Your task to perform on an android device: delete the emails in spam in the gmail app Image 0: 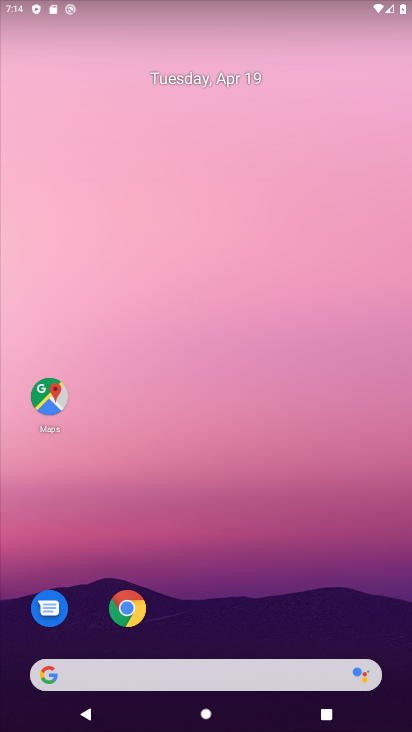
Step 0: drag from (352, 637) to (305, 149)
Your task to perform on an android device: delete the emails in spam in the gmail app Image 1: 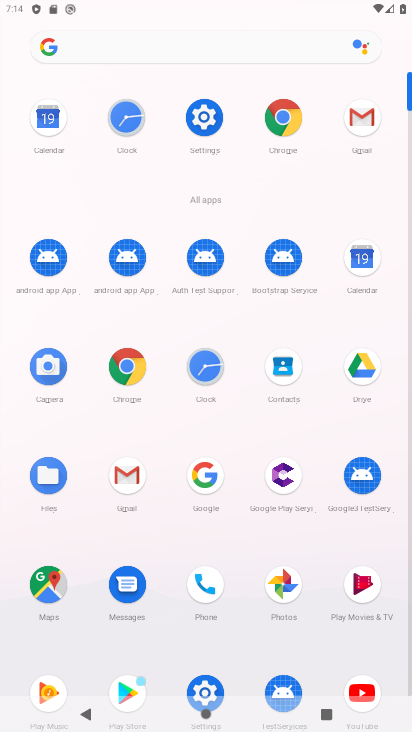
Step 1: click (120, 467)
Your task to perform on an android device: delete the emails in spam in the gmail app Image 2: 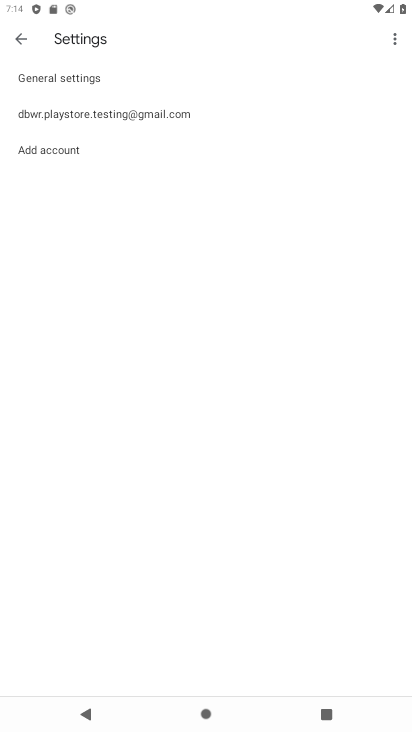
Step 2: press home button
Your task to perform on an android device: delete the emails in spam in the gmail app Image 3: 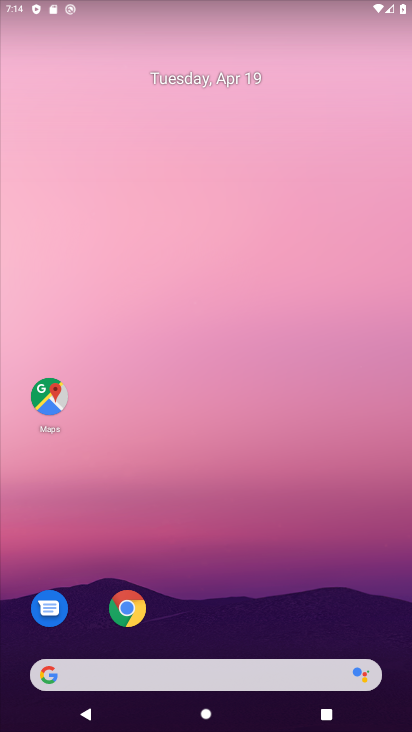
Step 3: drag from (239, 567) to (229, 192)
Your task to perform on an android device: delete the emails in spam in the gmail app Image 4: 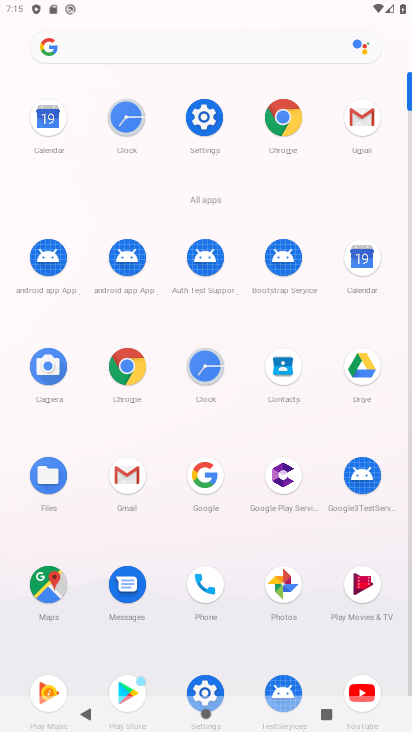
Step 4: click (131, 476)
Your task to perform on an android device: delete the emails in spam in the gmail app Image 5: 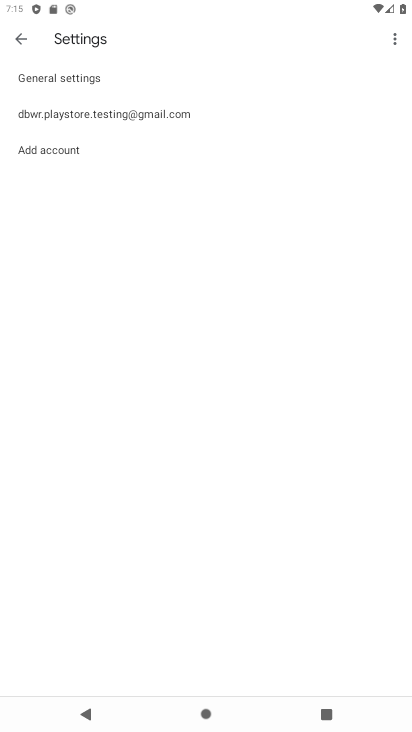
Step 5: click (28, 40)
Your task to perform on an android device: delete the emails in spam in the gmail app Image 6: 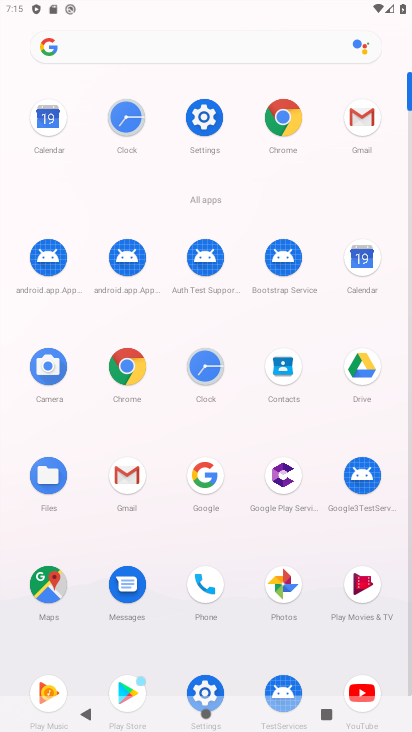
Step 6: click (118, 468)
Your task to perform on an android device: delete the emails in spam in the gmail app Image 7: 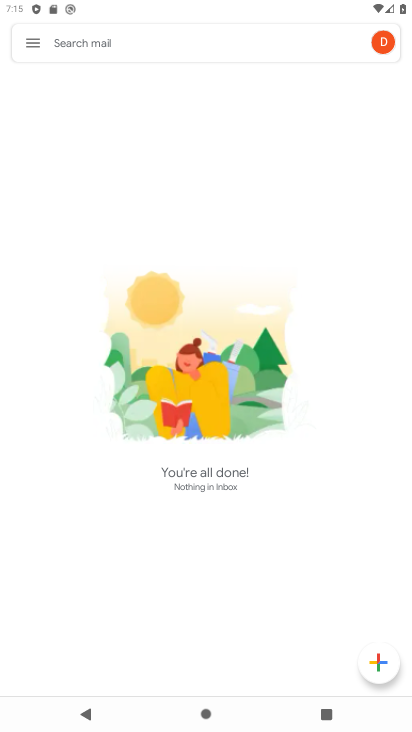
Step 7: click (32, 35)
Your task to perform on an android device: delete the emails in spam in the gmail app Image 8: 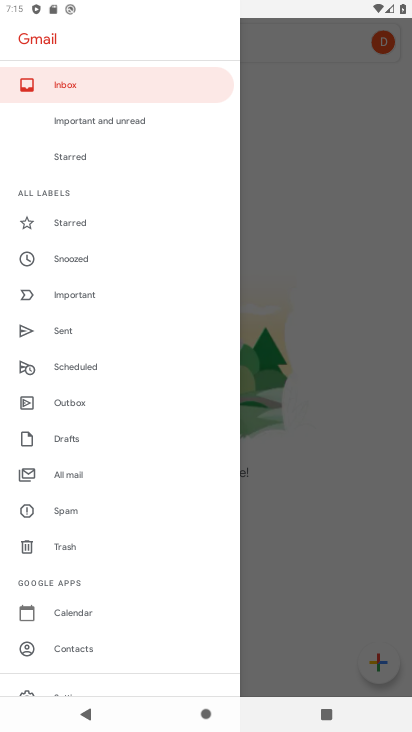
Step 8: click (67, 516)
Your task to perform on an android device: delete the emails in spam in the gmail app Image 9: 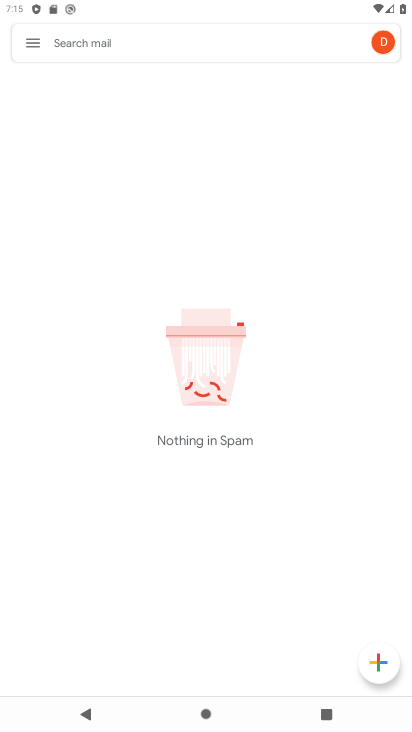
Step 9: task complete